Your task to perform on an android device: turn off airplane mode Image 0: 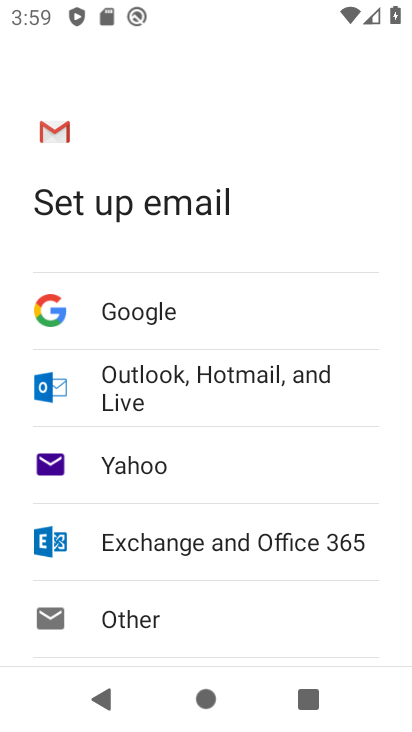
Step 0: press home button
Your task to perform on an android device: turn off airplane mode Image 1: 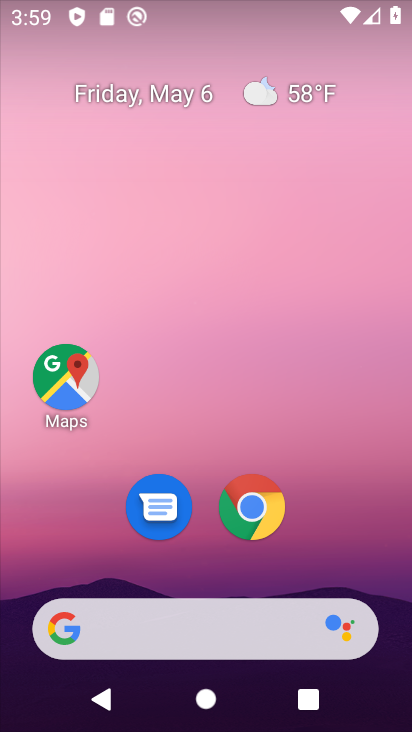
Step 1: drag from (323, 535) to (290, 205)
Your task to perform on an android device: turn off airplane mode Image 2: 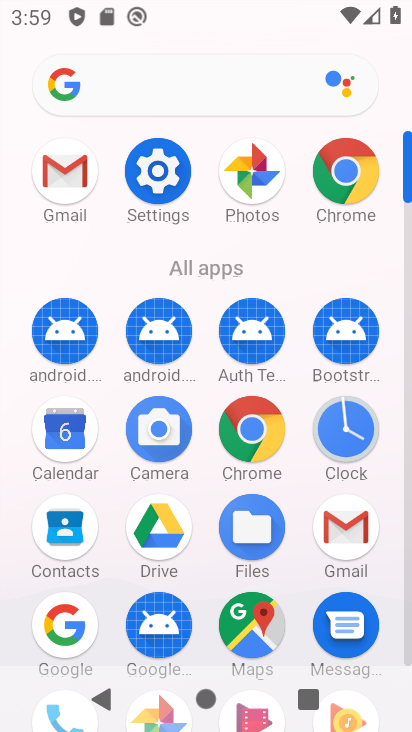
Step 2: click (170, 178)
Your task to perform on an android device: turn off airplane mode Image 3: 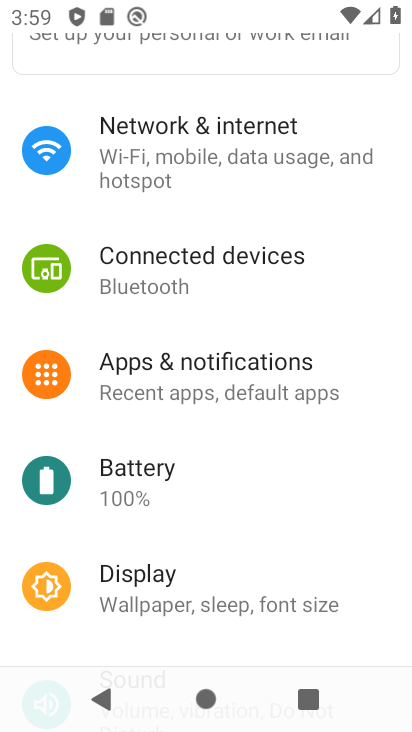
Step 3: click (199, 179)
Your task to perform on an android device: turn off airplane mode Image 4: 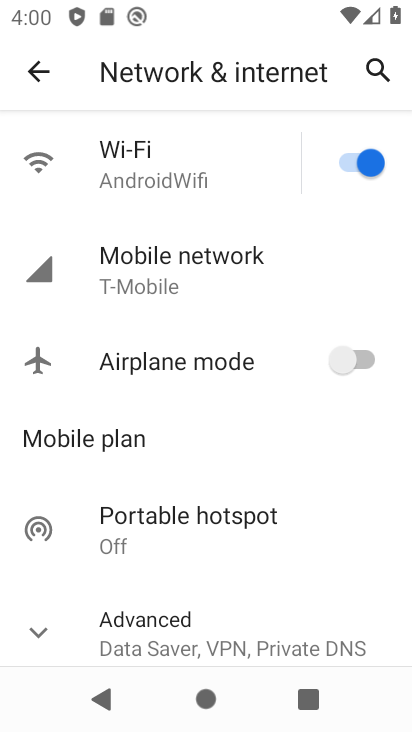
Step 4: task complete